Your task to perform on an android device: turn on wifi Image 0: 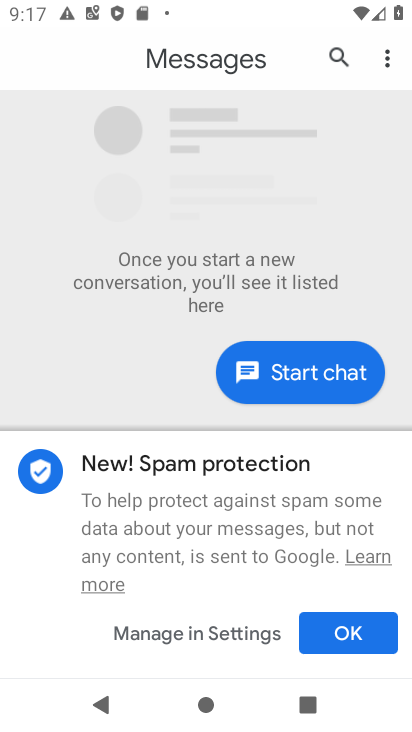
Step 0: press home button
Your task to perform on an android device: turn on wifi Image 1: 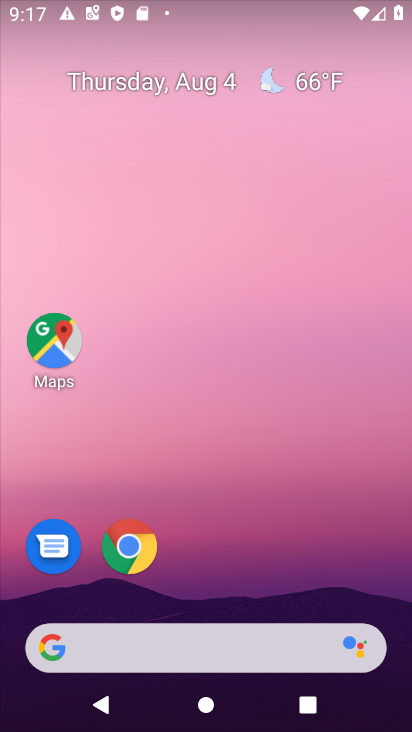
Step 1: task complete